Your task to perform on an android device: set the stopwatch Image 0: 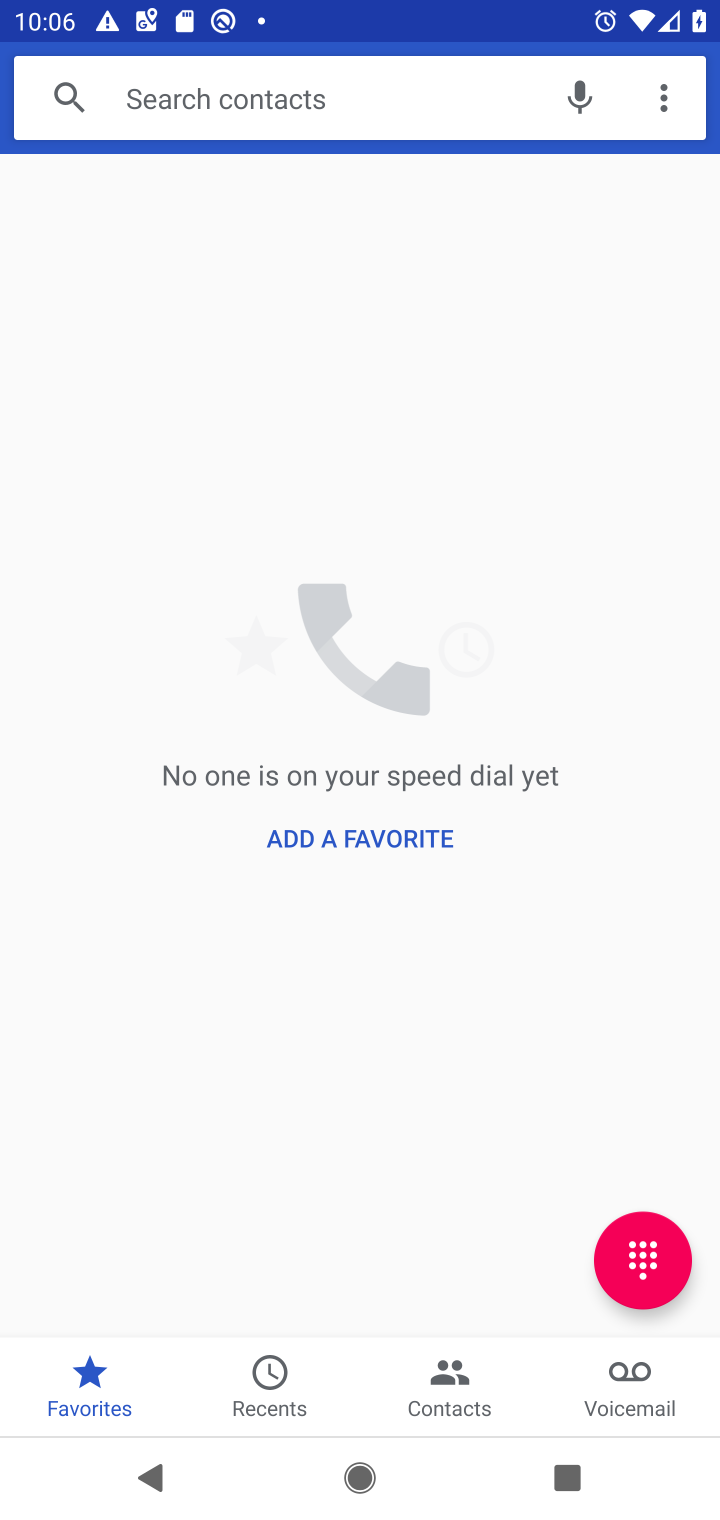
Step 0: press home button
Your task to perform on an android device: set the stopwatch Image 1: 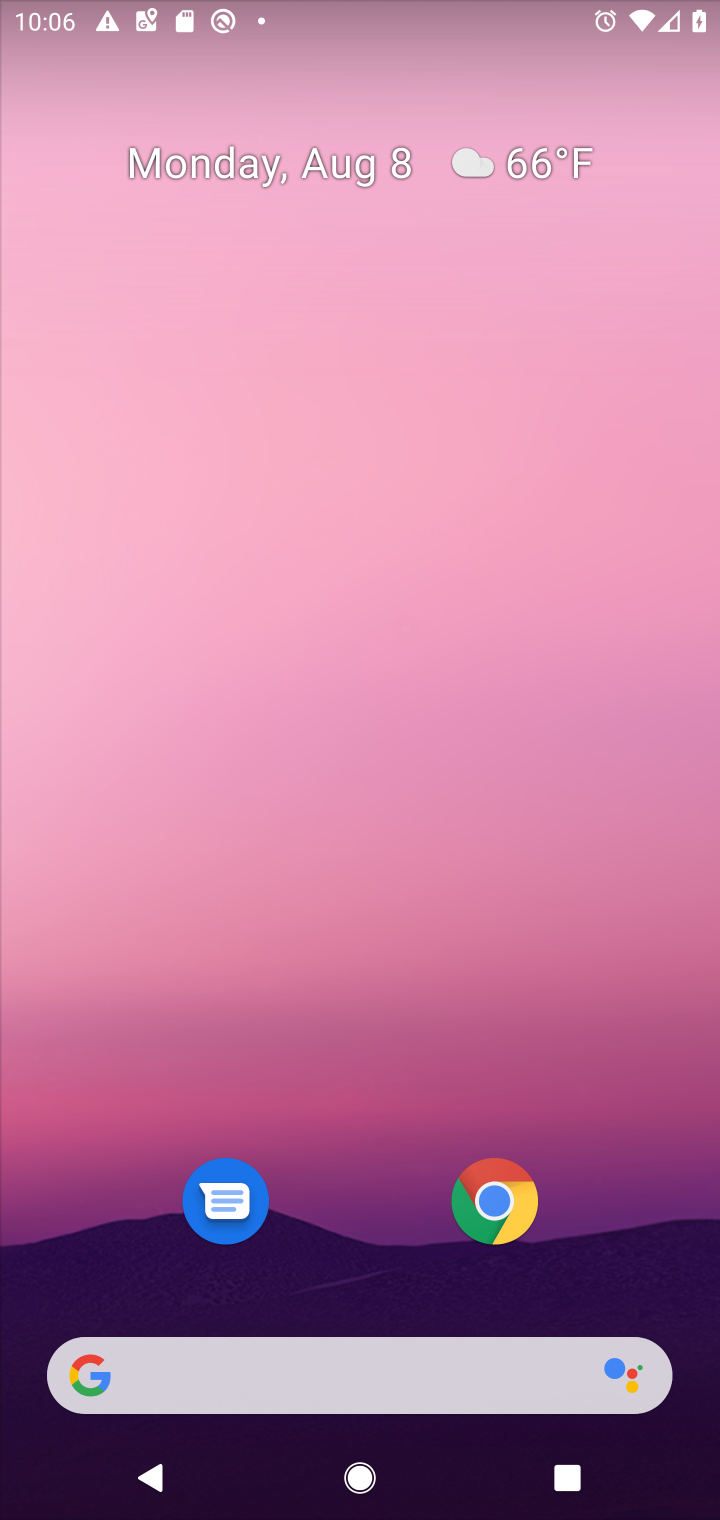
Step 1: drag from (334, 1267) to (412, 173)
Your task to perform on an android device: set the stopwatch Image 2: 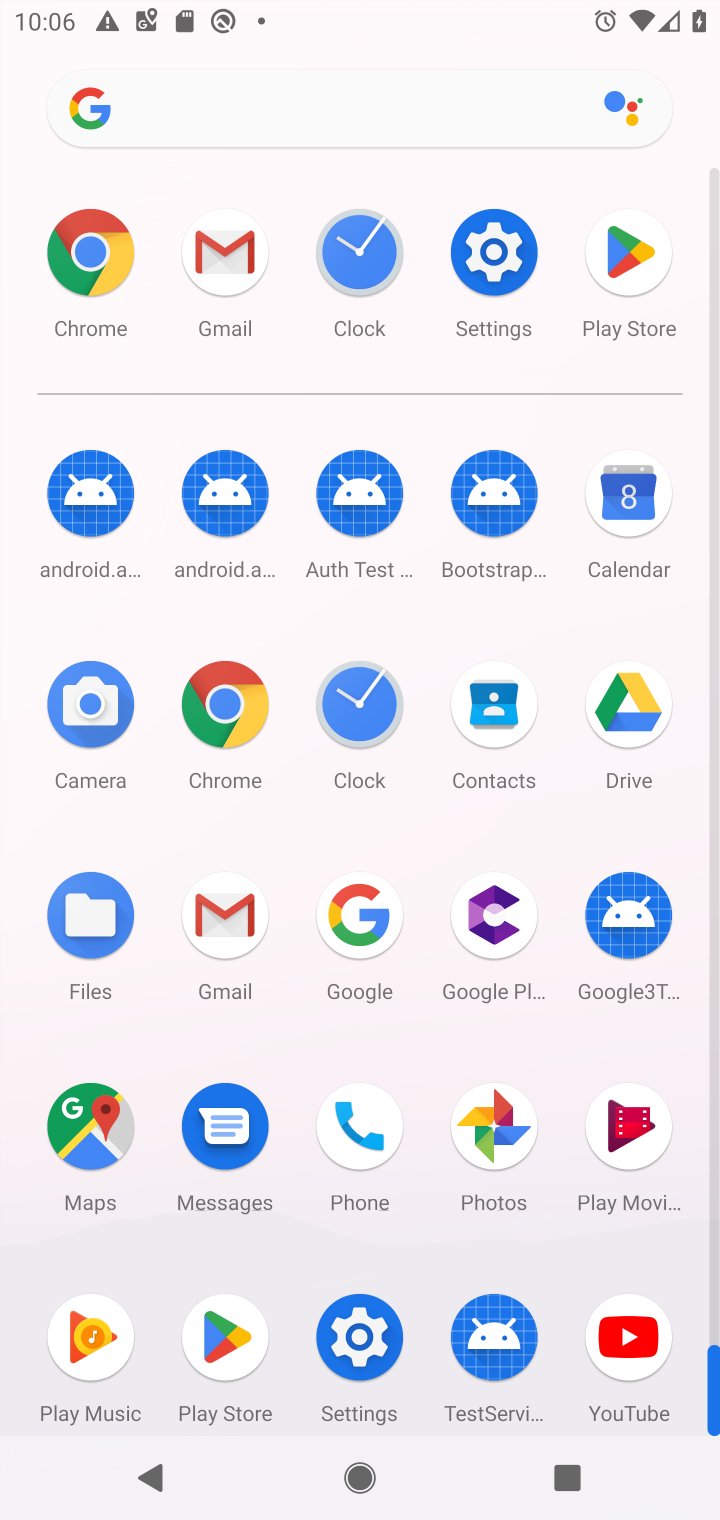
Step 2: click (354, 708)
Your task to perform on an android device: set the stopwatch Image 3: 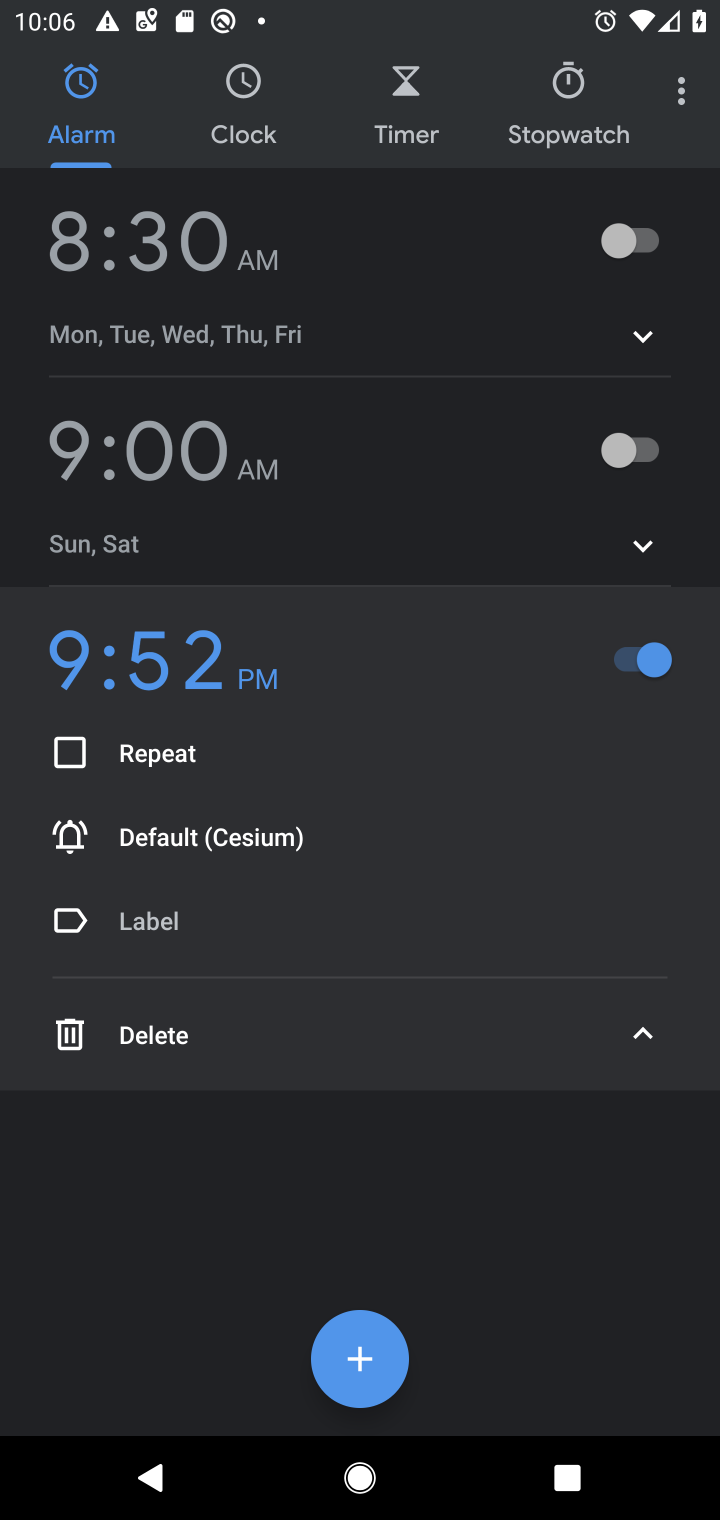
Step 3: click (576, 90)
Your task to perform on an android device: set the stopwatch Image 4: 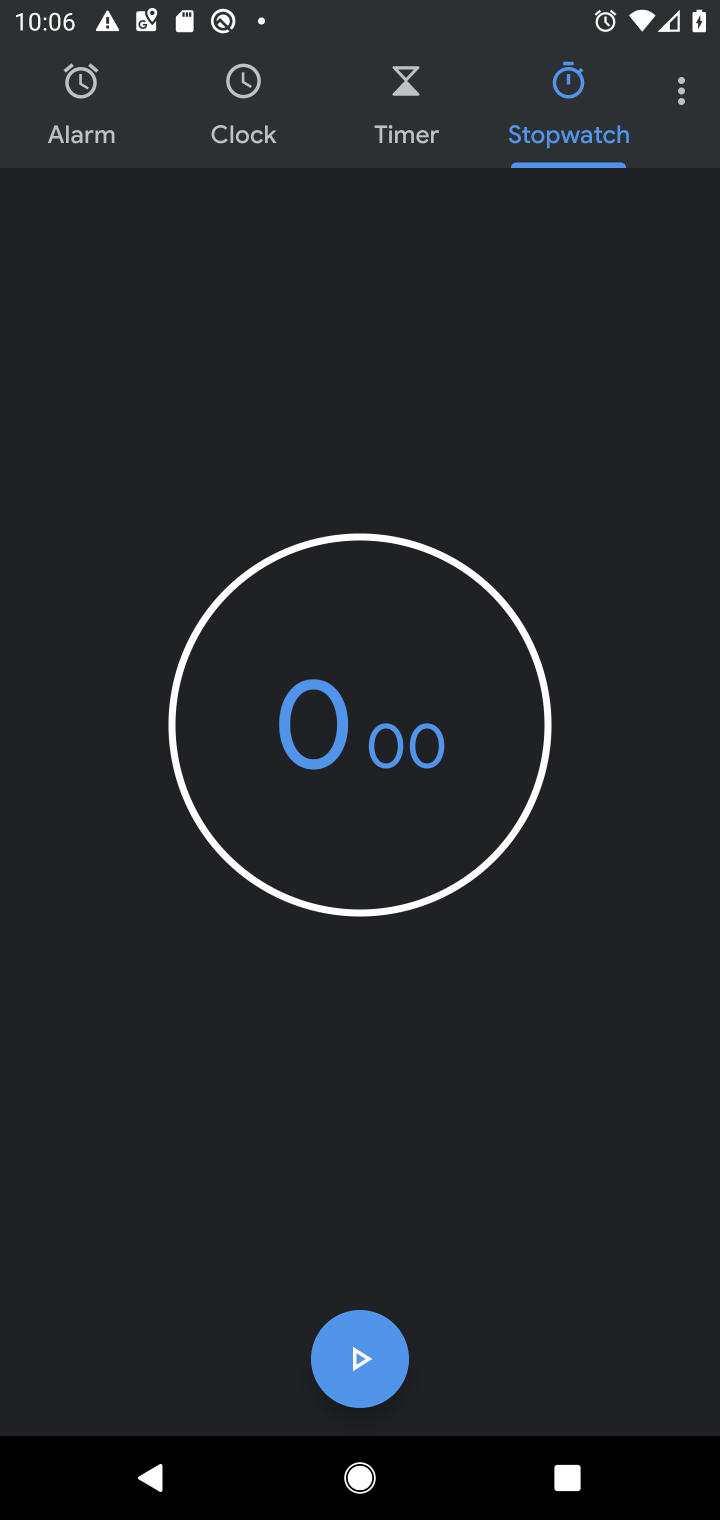
Step 4: click (362, 1358)
Your task to perform on an android device: set the stopwatch Image 5: 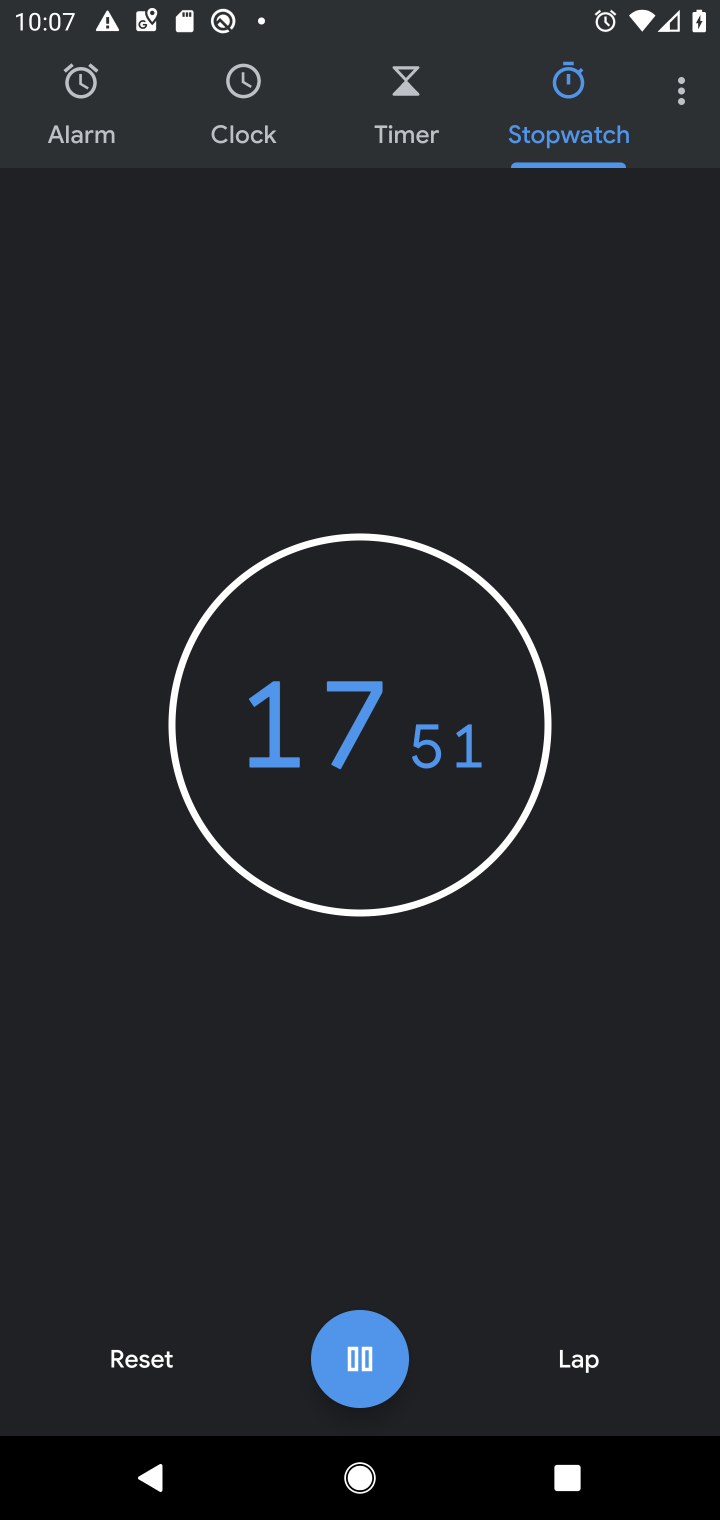
Step 5: task complete